Your task to perform on an android device: Show me recent news Image 0: 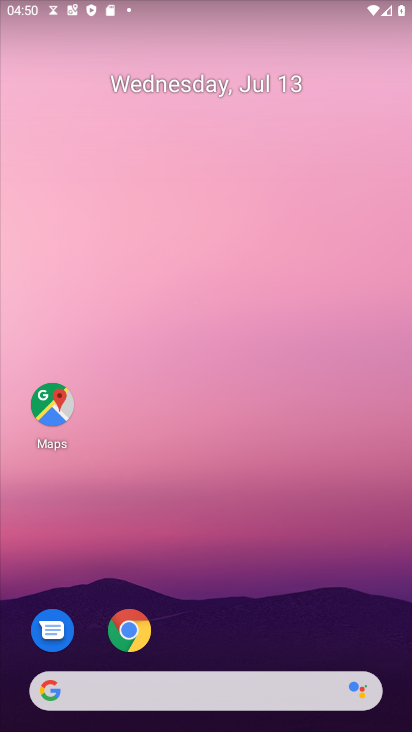
Step 0: drag from (136, 631) to (213, 80)
Your task to perform on an android device: Show me recent news Image 1: 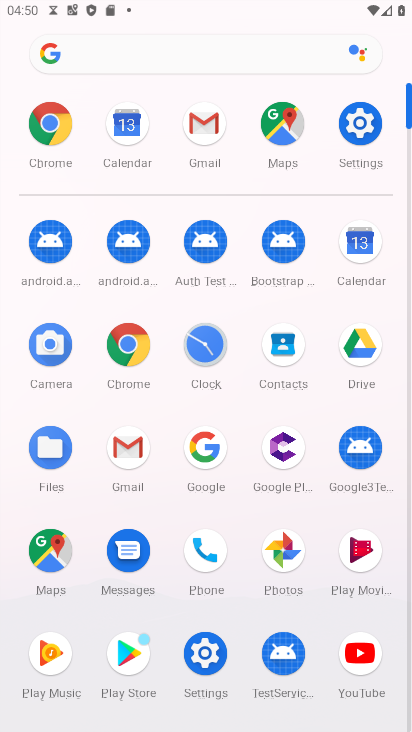
Step 1: click (133, 359)
Your task to perform on an android device: Show me recent news Image 2: 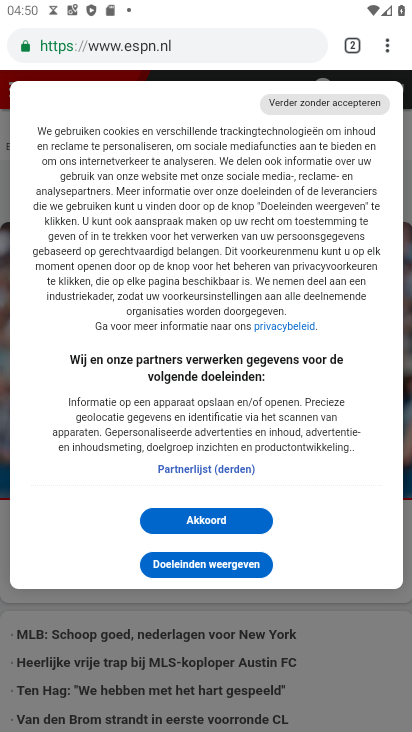
Step 2: click (212, 47)
Your task to perform on an android device: Show me recent news Image 3: 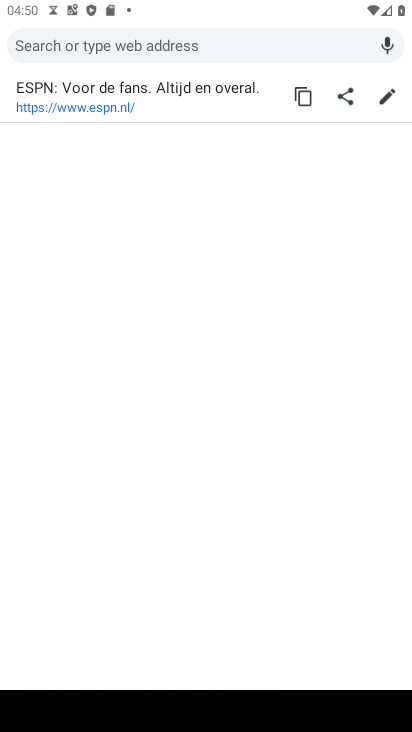
Step 3: type "recent news"
Your task to perform on an android device: Show me recent news Image 4: 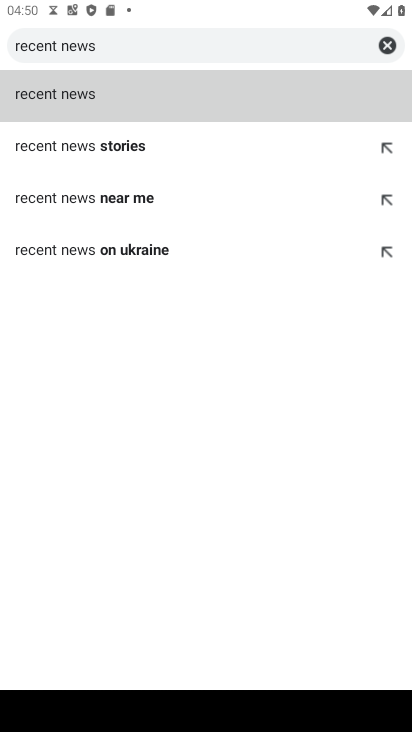
Step 4: click (219, 108)
Your task to perform on an android device: Show me recent news Image 5: 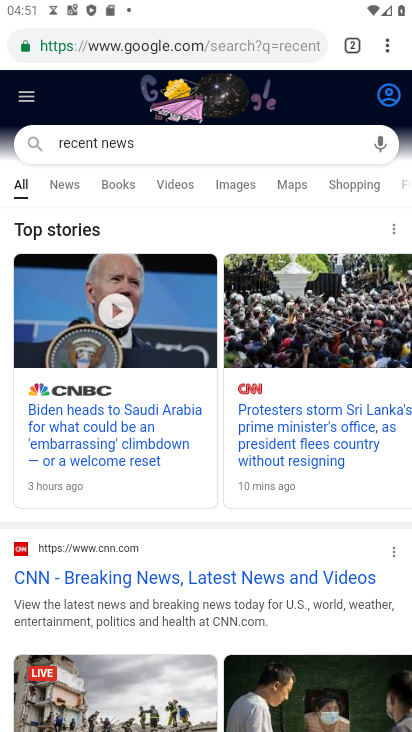
Step 5: task complete